Your task to perform on an android device: Open Google Chrome and click the shortcut for Amazon.com Image 0: 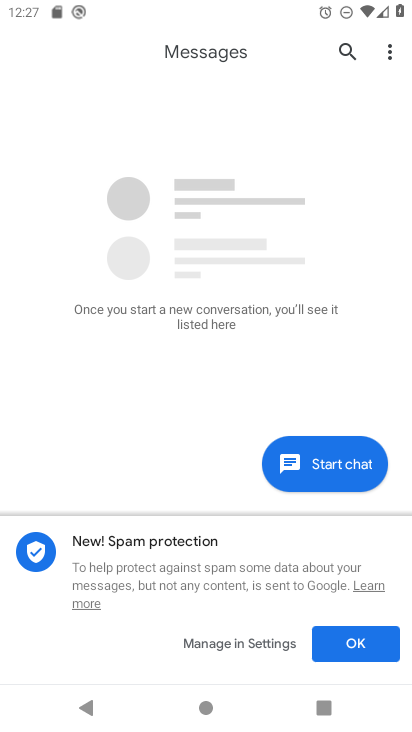
Step 0: press home button
Your task to perform on an android device: Open Google Chrome and click the shortcut for Amazon.com Image 1: 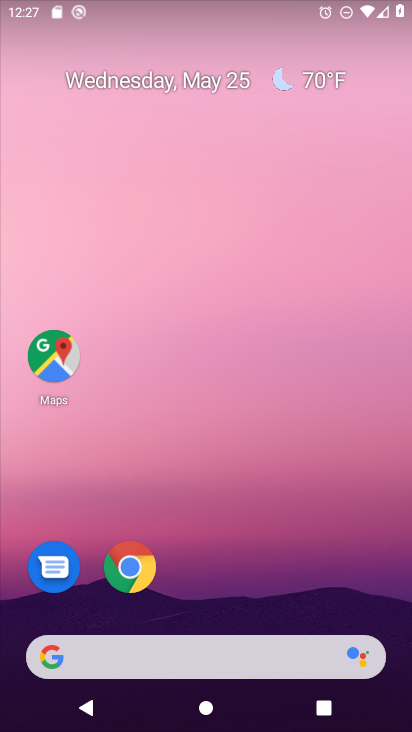
Step 1: click (133, 564)
Your task to perform on an android device: Open Google Chrome and click the shortcut for Amazon.com Image 2: 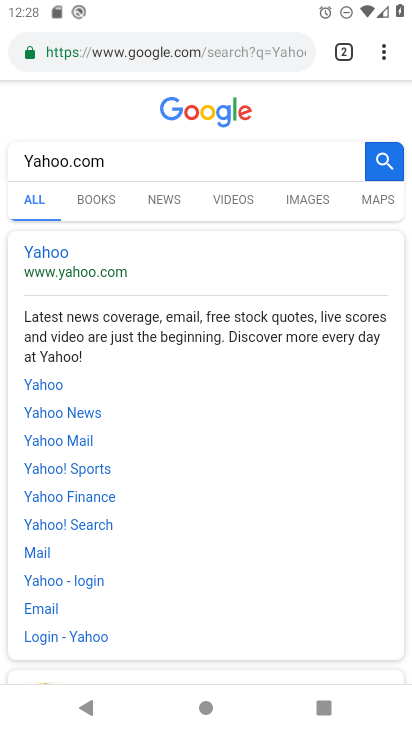
Step 2: click (302, 49)
Your task to perform on an android device: Open Google Chrome and click the shortcut for Amazon.com Image 3: 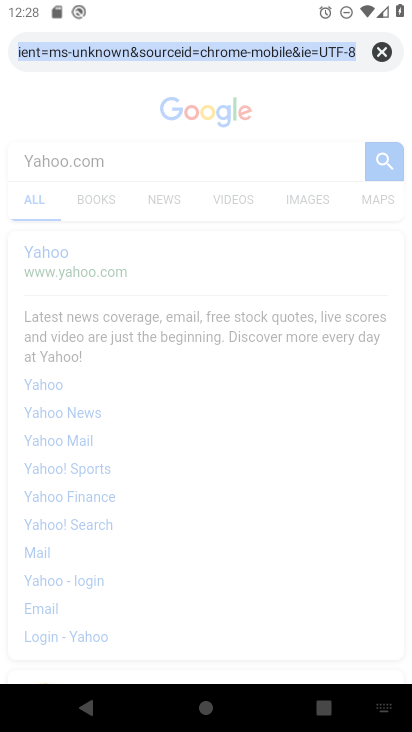
Step 3: drag from (329, 46) to (260, 39)
Your task to perform on an android device: Open Google Chrome and click the shortcut for Amazon.com Image 4: 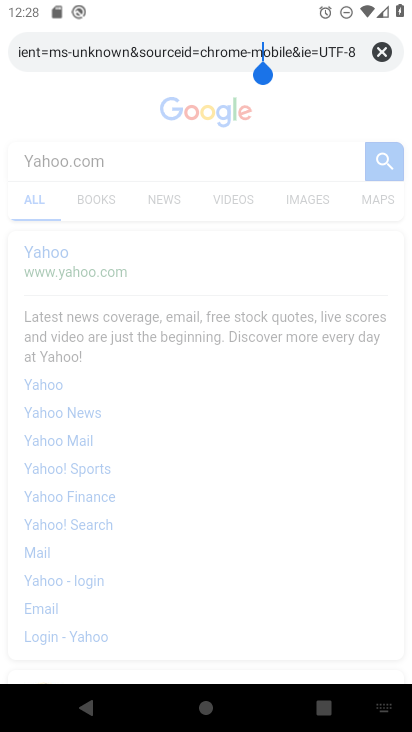
Step 4: click (384, 48)
Your task to perform on an android device: Open Google Chrome and click the shortcut for Amazon.com Image 5: 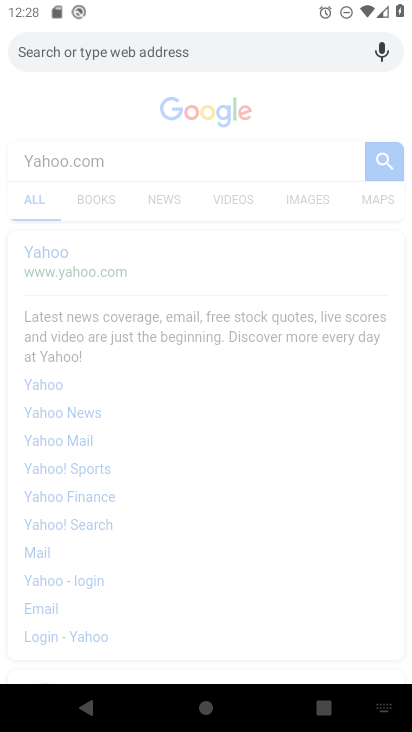
Step 5: type "Amazon.com"
Your task to perform on an android device: Open Google Chrome and click the shortcut for Amazon.com Image 6: 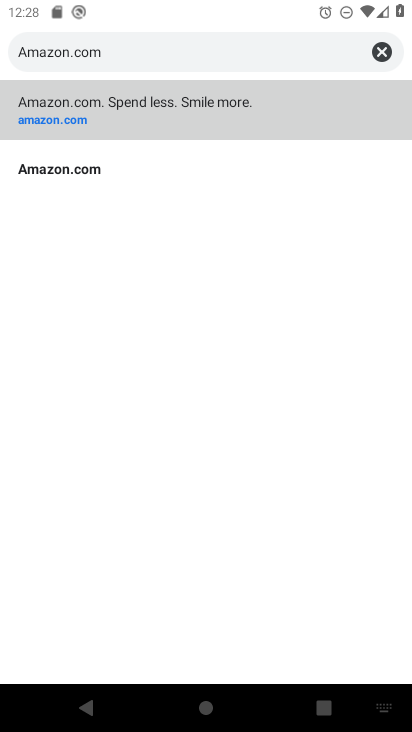
Step 6: click (66, 168)
Your task to perform on an android device: Open Google Chrome and click the shortcut for Amazon.com Image 7: 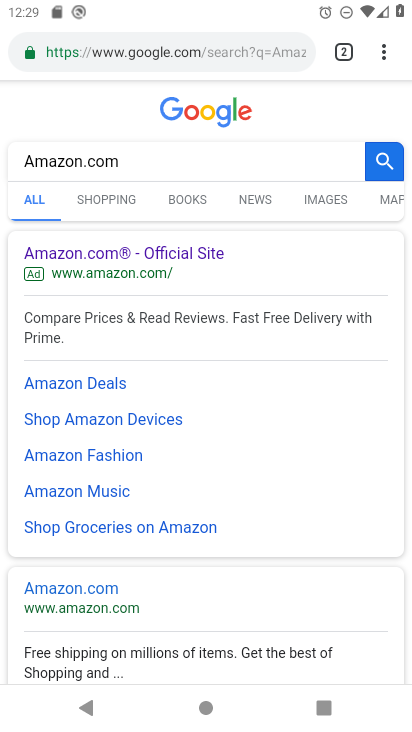
Step 7: task complete